Your task to perform on an android device: empty trash in google photos Image 0: 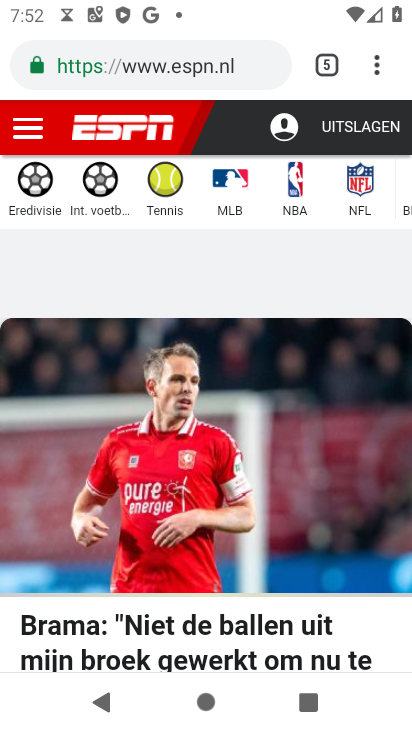
Step 0: press home button
Your task to perform on an android device: empty trash in google photos Image 1: 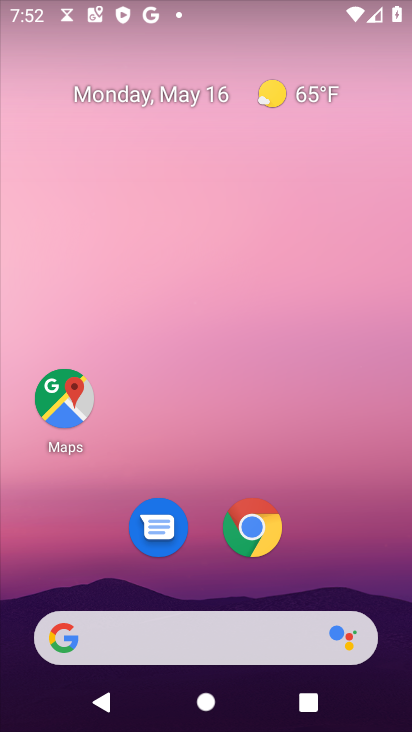
Step 1: drag from (232, 577) to (225, 299)
Your task to perform on an android device: empty trash in google photos Image 2: 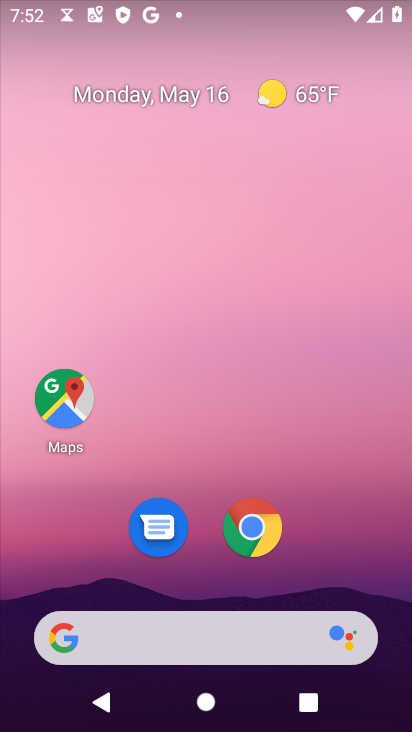
Step 2: drag from (221, 623) to (278, 245)
Your task to perform on an android device: empty trash in google photos Image 3: 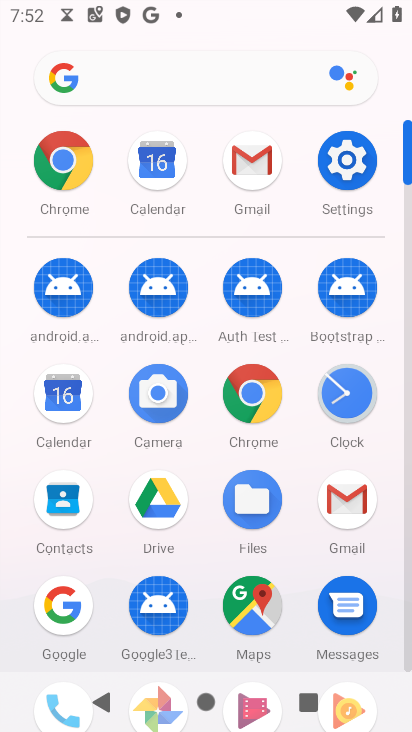
Step 3: drag from (190, 593) to (244, 286)
Your task to perform on an android device: empty trash in google photos Image 4: 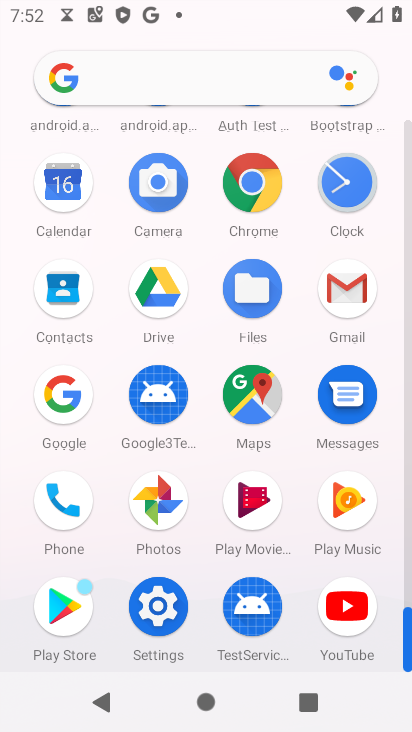
Step 4: click (150, 507)
Your task to perform on an android device: empty trash in google photos Image 5: 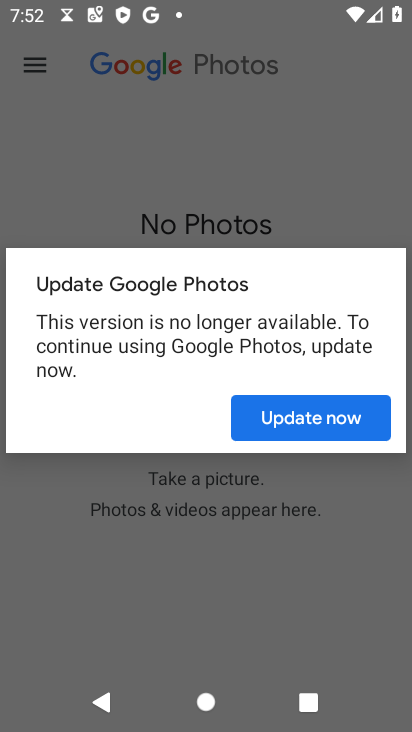
Step 5: click (302, 417)
Your task to perform on an android device: empty trash in google photos Image 6: 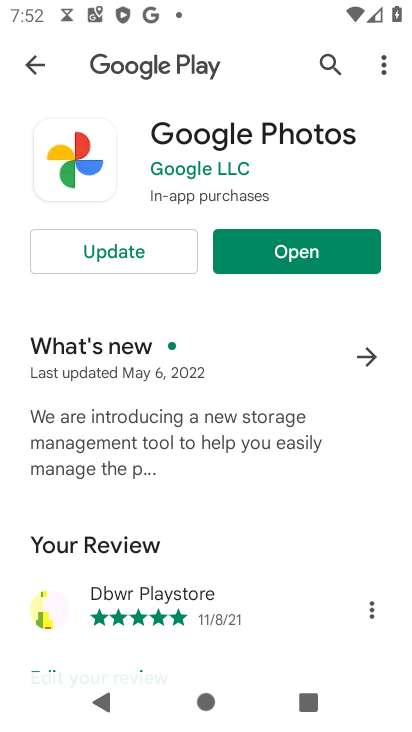
Step 6: press back button
Your task to perform on an android device: empty trash in google photos Image 7: 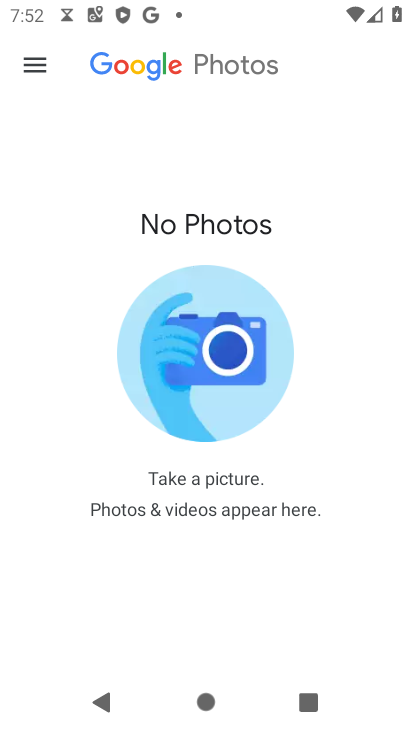
Step 7: click (38, 59)
Your task to perform on an android device: empty trash in google photos Image 8: 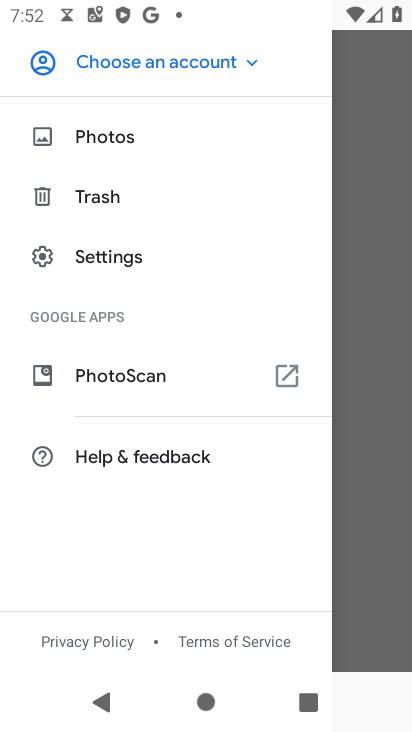
Step 8: click (123, 189)
Your task to perform on an android device: empty trash in google photos Image 9: 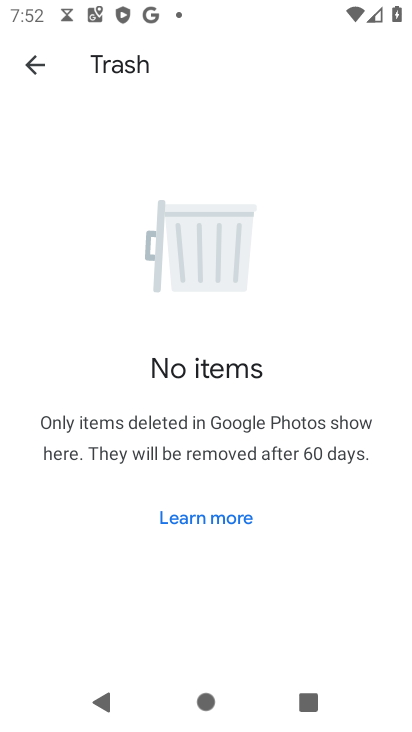
Step 9: task complete